Your task to perform on an android device: Go to Reddit.com Image 0: 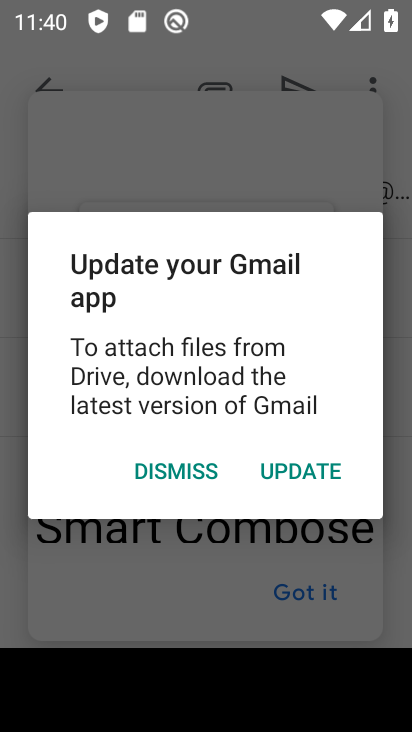
Step 0: press home button
Your task to perform on an android device: Go to Reddit.com Image 1: 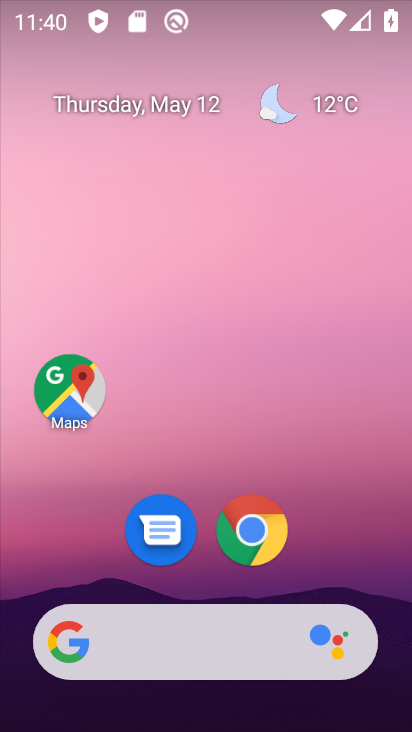
Step 1: click (269, 530)
Your task to perform on an android device: Go to Reddit.com Image 2: 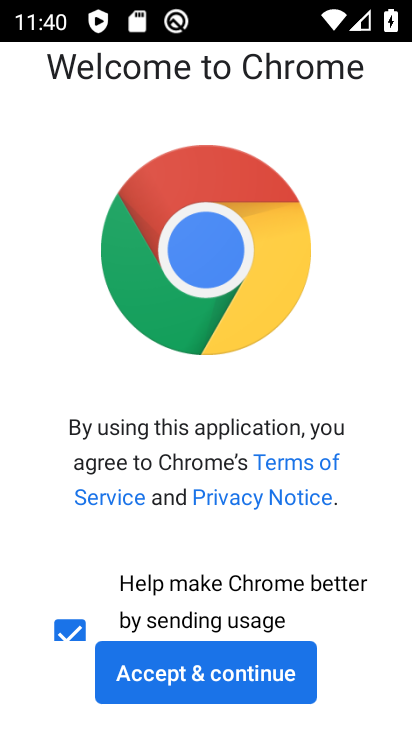
Step 2: click (193, 674)
Your task to perform on an android device: Go to Reddit.com Image 3: 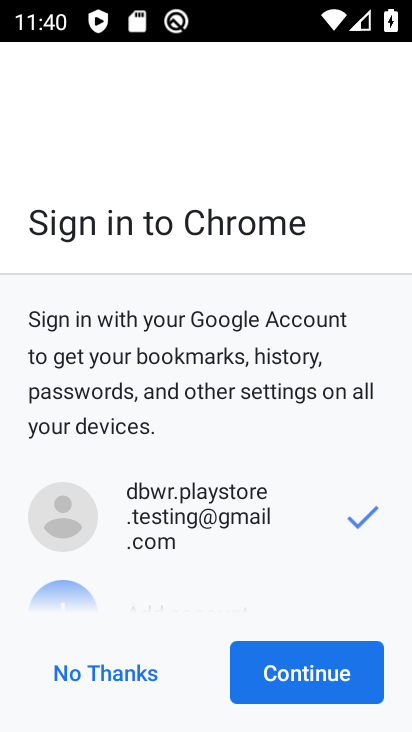
Step 3: click (272, 662)
Your task to perform on an android device: Go to Reddit.com Image 4: 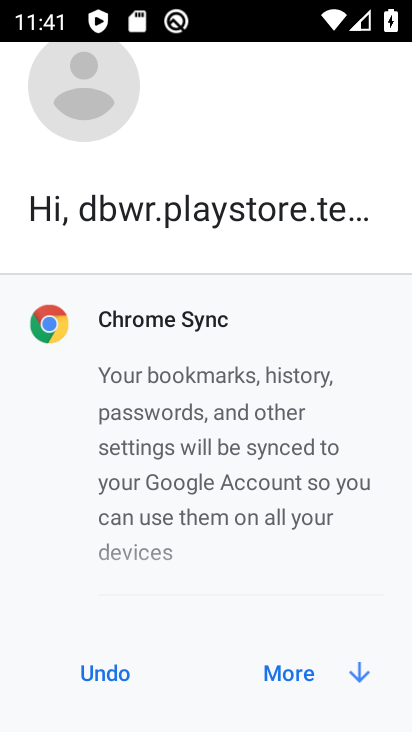
Step 4: click (274, 678)
Your task to perform on an android device: Go to Reddit.com Image 5: 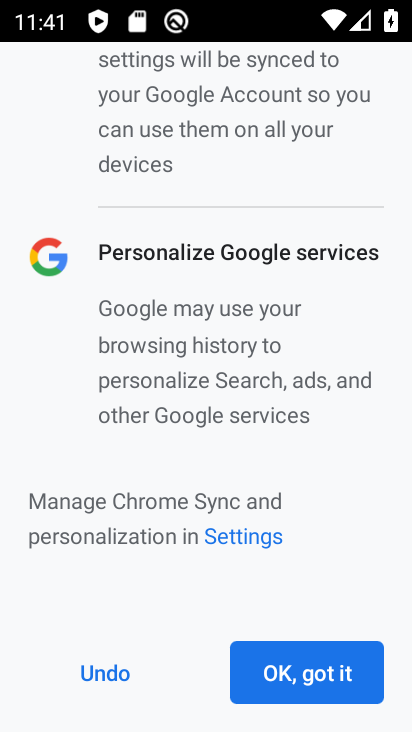
Step 5: click (333, 664)
Your task to perform on an android device: Go to Reddit.com Image 6: 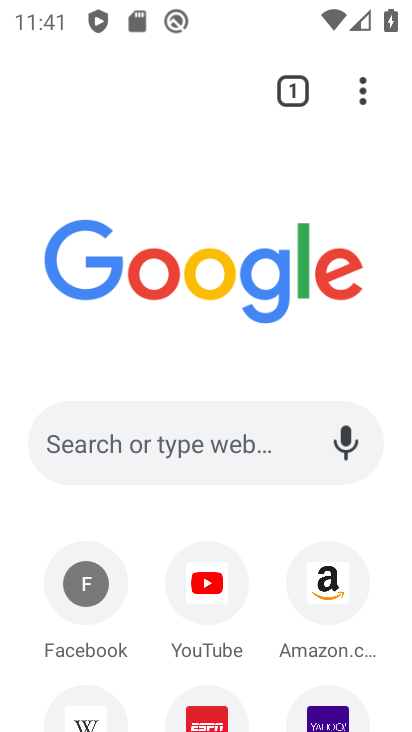
Step 6: click (221, 459)
Your task to perform on an android device: Go to Reddit.com Image 7: 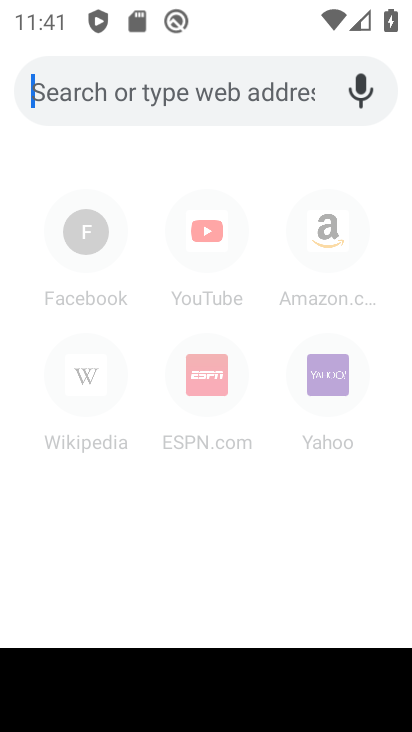
Step 7: type "reddit.com"
Your task to perform on an android device: Go to Reddit.com Image 8: 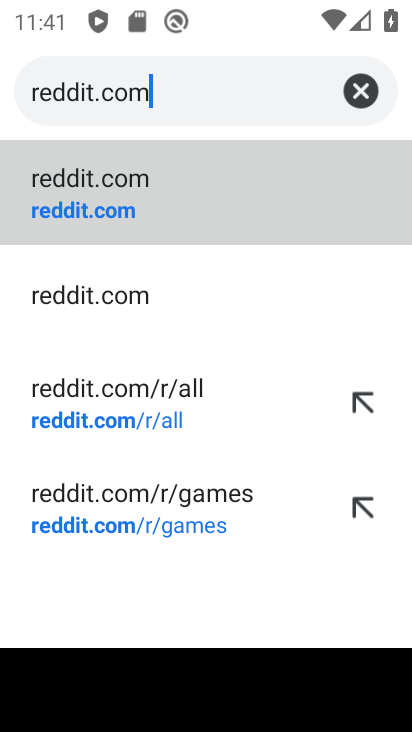
Step 8: click (194, 188)
Your task to perform on an android device: Go to Reddit.com Image 9: 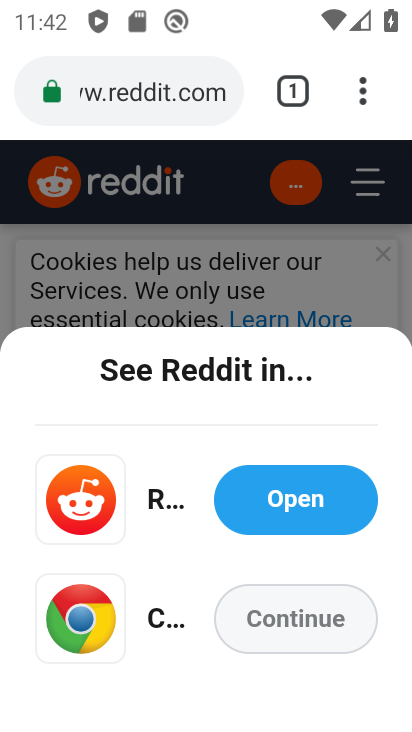
Step 9: click (306, 625)
Your task to perform on an android device: Go to Reddit.com Image 10: 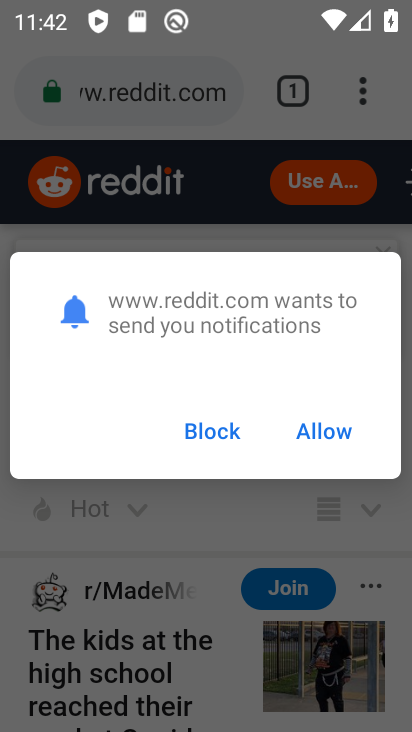
Step 10: task complete